Your task to perform on an android device: Open sound settings Image 0: 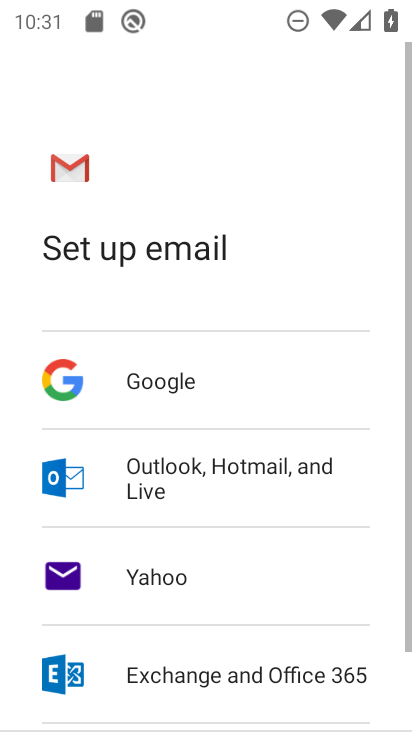
Step 0: press home button
Your task to perform on an android device: Open sound settings Image 1: 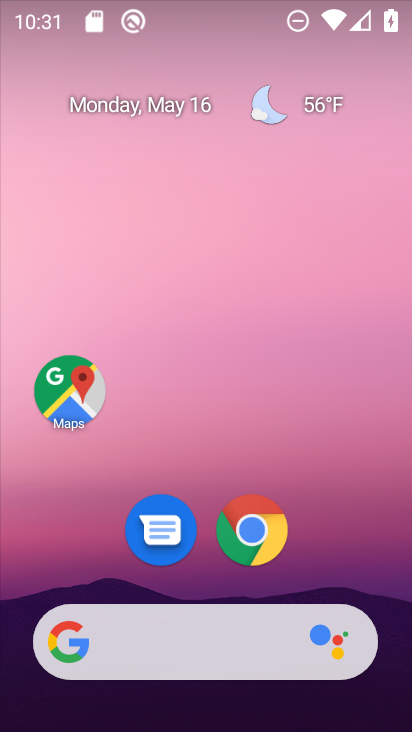
Step 1: drag from (368, 519) to (365, 201)
Your task to perform on an android device: Open sound settings Image 2: 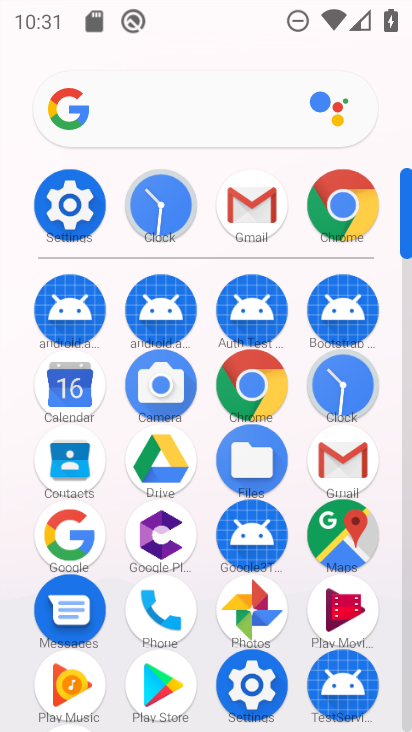
Step 2: click (94, 228)
Your task to perform on an android device: Open sound settings Image 3: 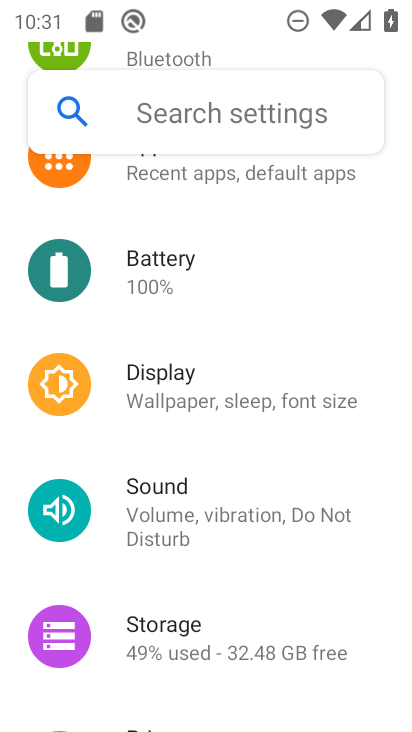
Step 3: drag from (316, 571) to (354, 391)
Your task to perform on an android device: Open sound settings Image 4: 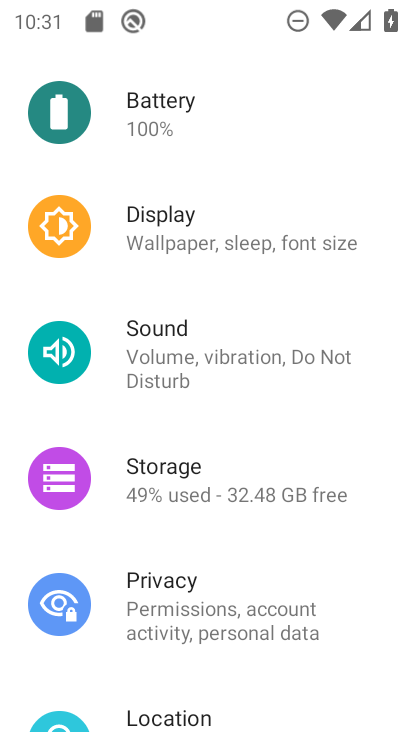
Step 4: drag from (354, 627) to (366, 520)
Your task to perform on an android device: Open sound settings Image 5: 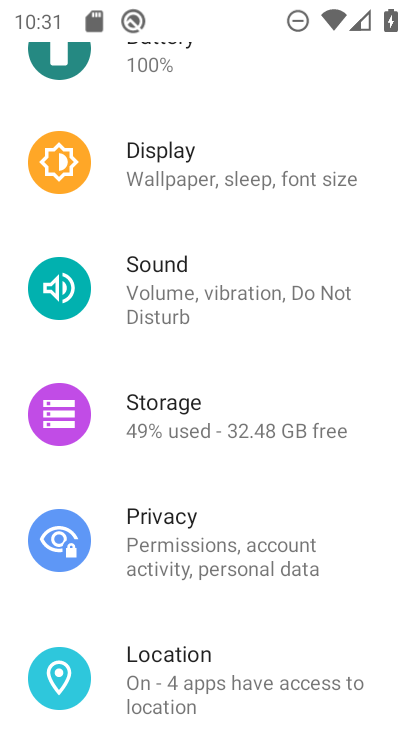
Step 5: drag from (360, 612) to (369, 417)
Your task to perform on an android device: Open sound settings Image 6: 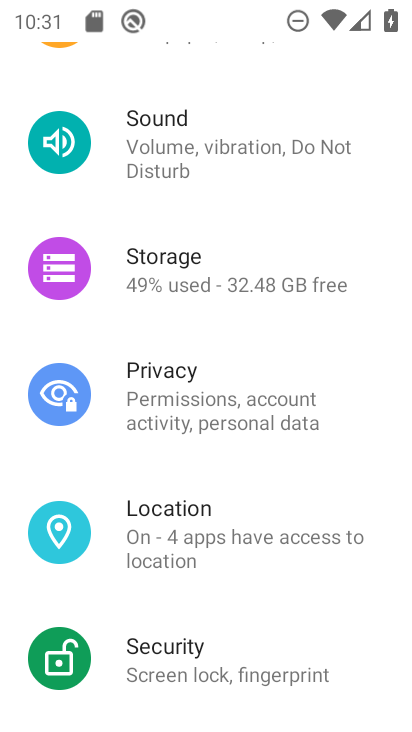
Step 6: drag from (327, 624) to (353, 477)
Your task to perform on an android device: Open sound settings Image 7: 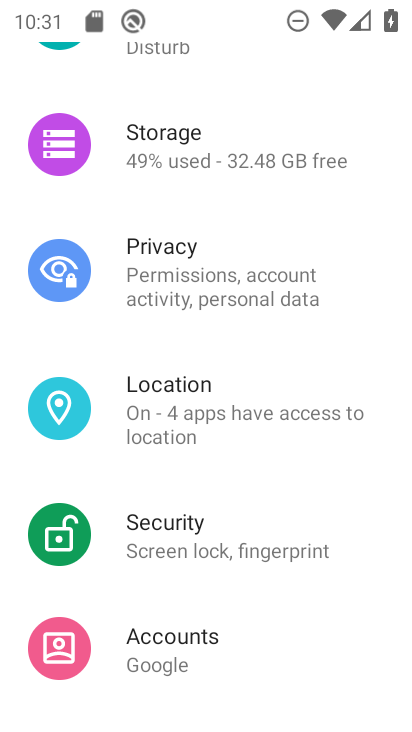
Step 7: drag from (350, 648) to (365, 538)
Your task to perform on an android device: Open sound settings Image 8: 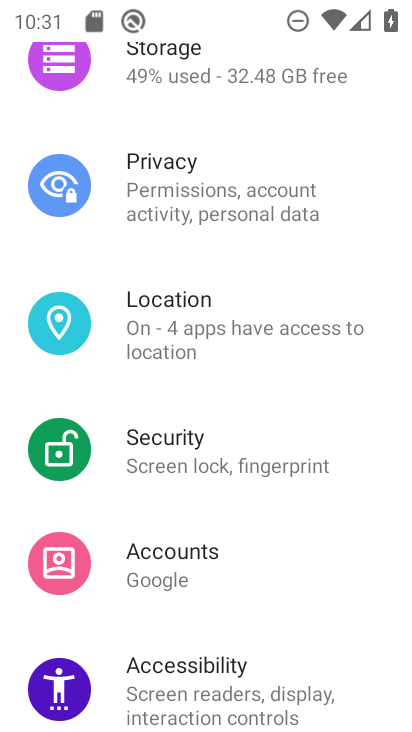
Step 8: drag from (352, 646) to (374, 566)
Your task to perform on an android device: Open sound settings Image 9: 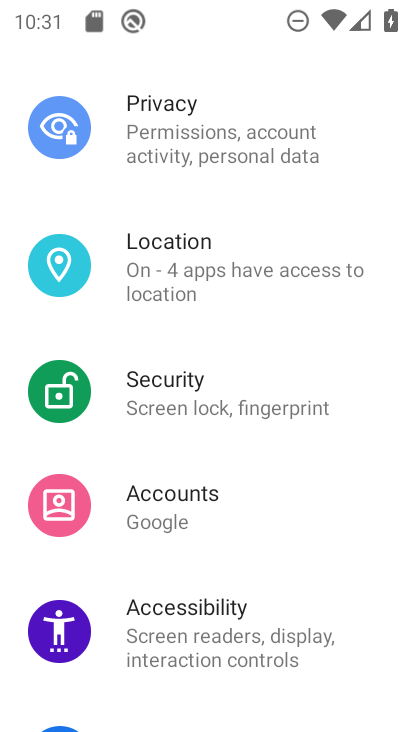
Step 9: drag from (358, 622) to (373, 574)
Your task to perform on an android device: Open sound settings Image 10: 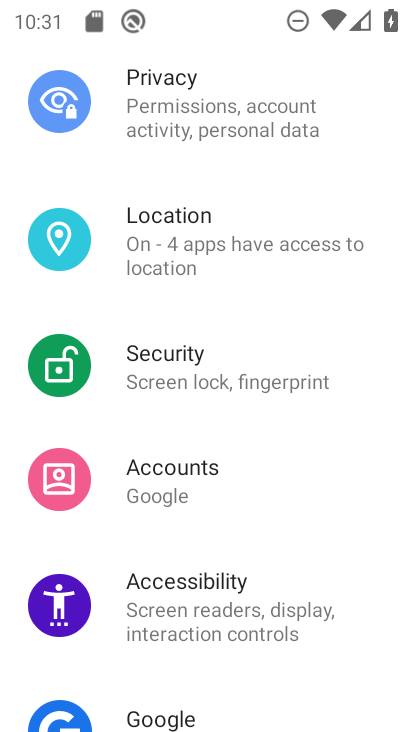
Step 10: drag from (358, 501) to (360, 584)
Your task to perform on an android device: Open sound settings Image 11: 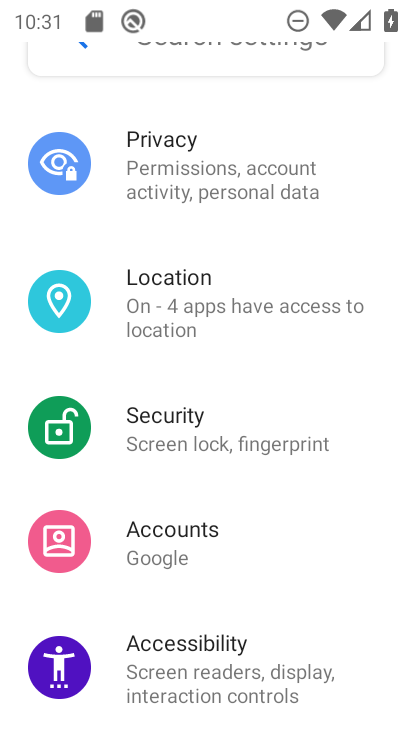
Step 11: drag from (349, 603) to (328, 508)
Your task to perform on an android device: Open sound settings Image 12: 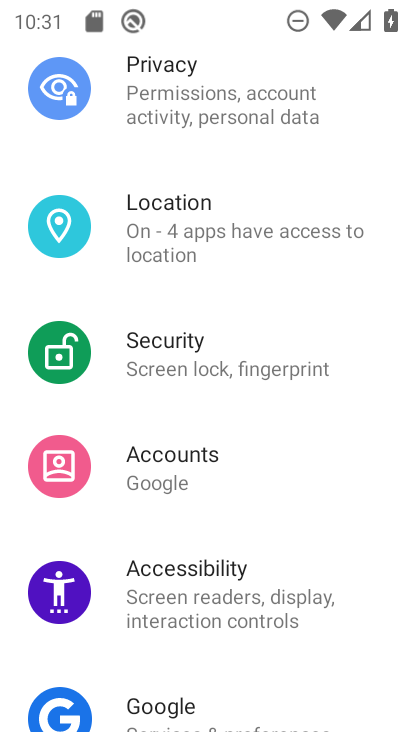
Step 12: drag from (318, 644) to (323, 477)
Your task to perform on an android device: Open sound settings Image 13: 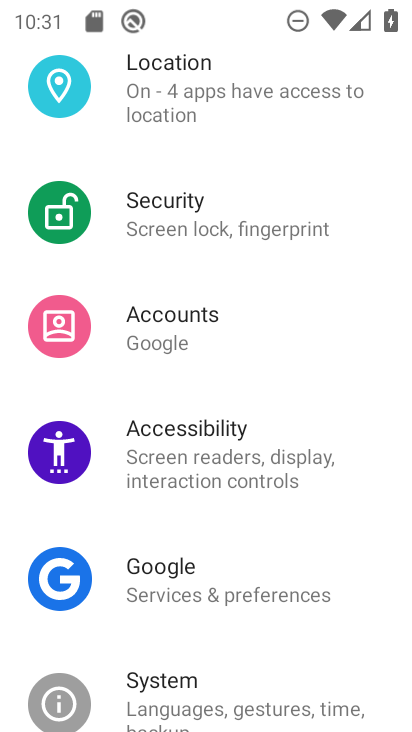
Step 13: drag from (328, 645) to (342, 535)
Your task to perform on an android device: Open sound settings Image 14: 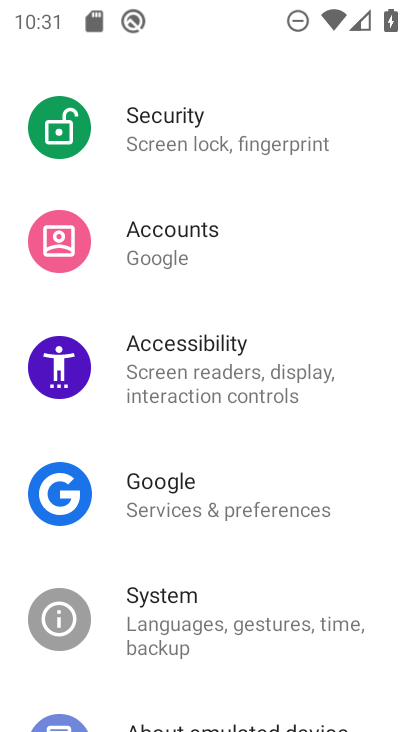
Step 14: drag from (369, 419) to (347, 503)
Your task to perform on an android device: Open sound settings Image 15: 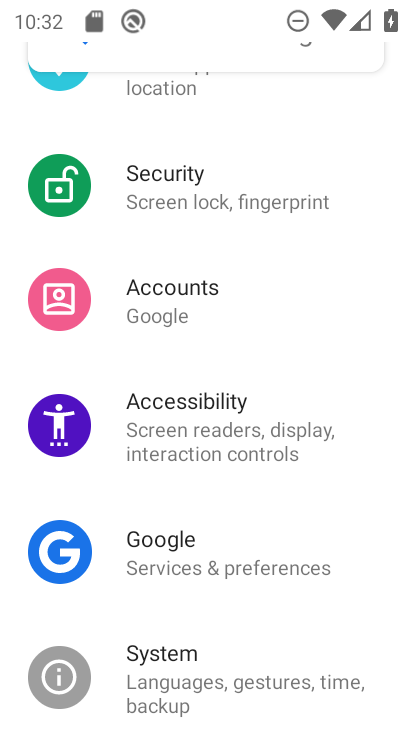
Step 15: drag from (356, 320) to (341, 517)
Your task to perform on an android device: Open sound settings Image 16: 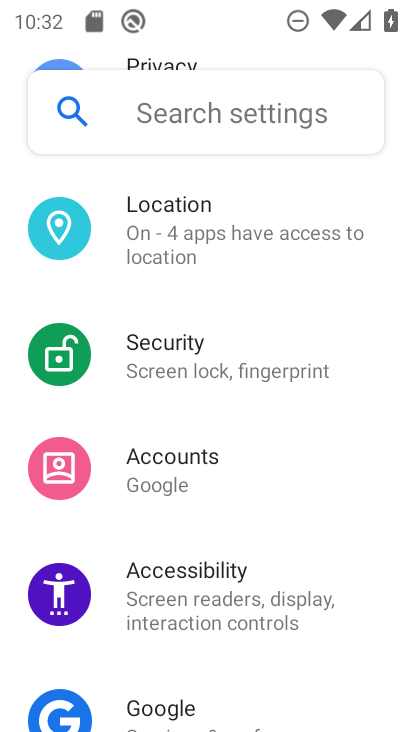
Step 16: drag from (365, 358) to (349, 475)
Your task to perform on an android device: Open sound settings Image 17: 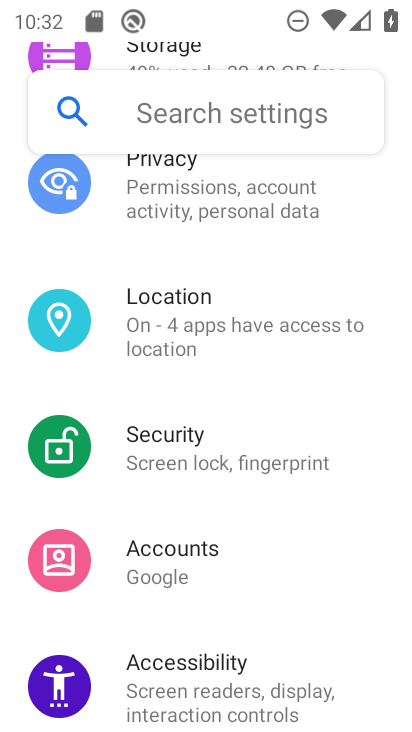
Step 17: drag from (360, 388) to (363, 425)
Your task to perform on an android device: Open sound settings Image 18: 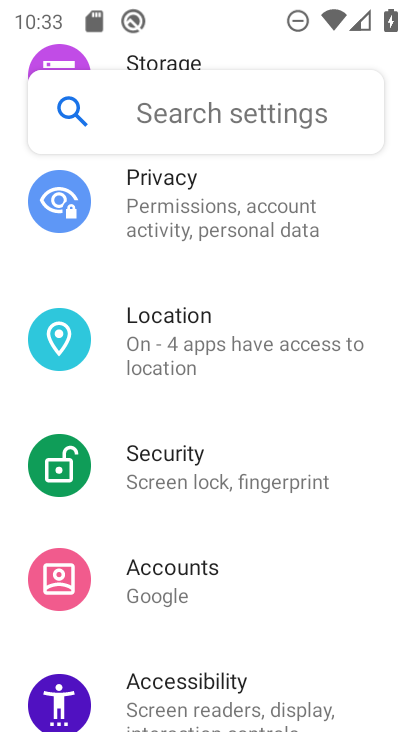
Step 18: drag from (298, 588) to (300, 382)
Your task to perform on an android device: Open sound settings Image 19: 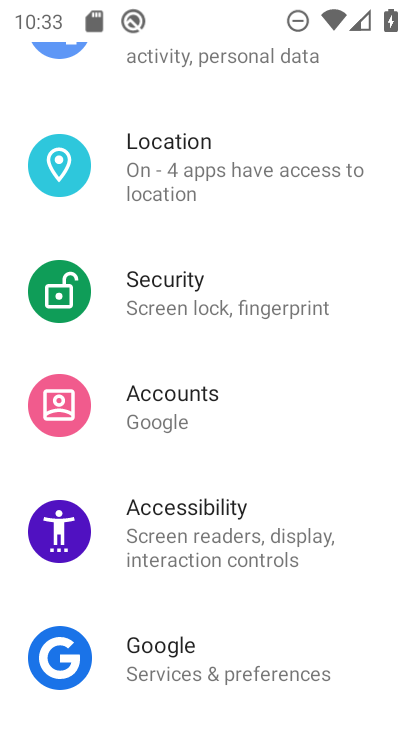
Step 19: drag from (293, 588) to (302, 395)
Your task to perform on an android device: Open sound settings Image 20: 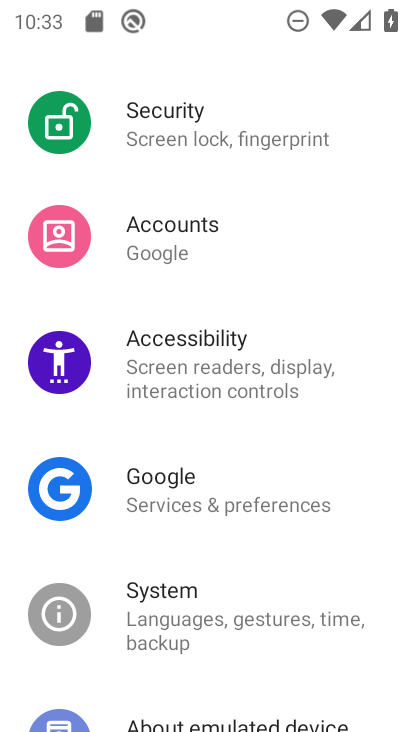
Step 20: drag from (296, 275) to (278, 538)
Your task to perform on an android device: Open sound settings Image 21: 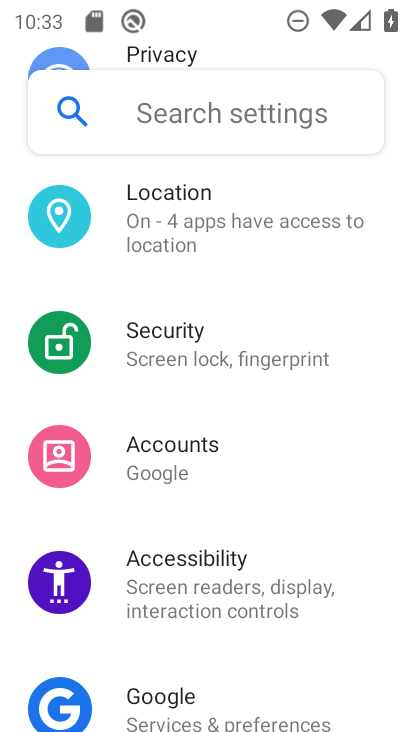
Step 21: drag from (305, 268) to (278, 498)
Your task to perform on an android device: Open sound settings Image 22: 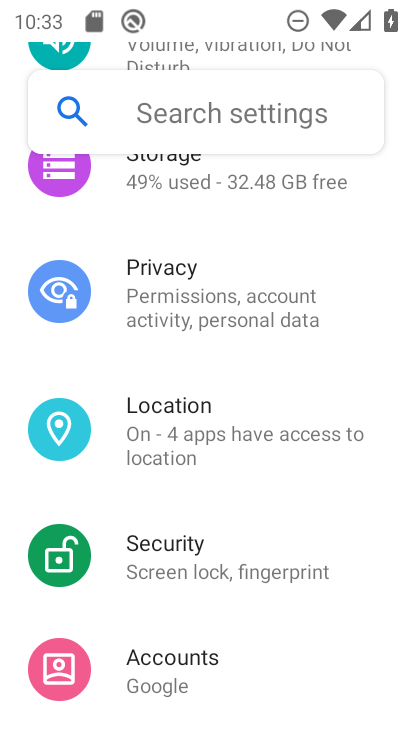
Step 22: drag from (294, 271) to (293, 479)
Your task to perform on an android device: Open sound settings Image 23: 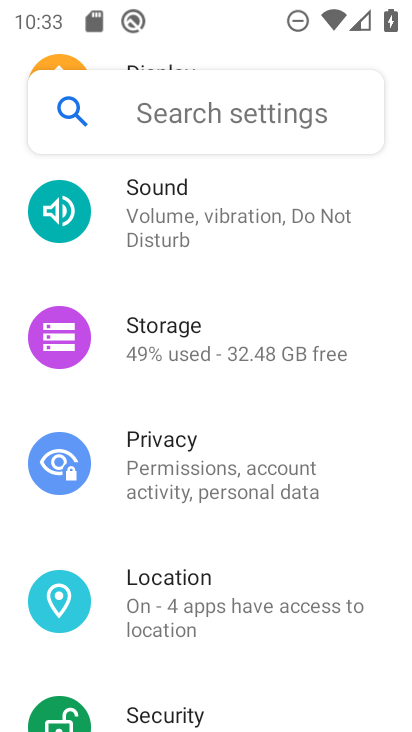
Step 23: drag from (328, 247) to (302, 432)
Your task to perform on an android device: Open sound settings Image 24: 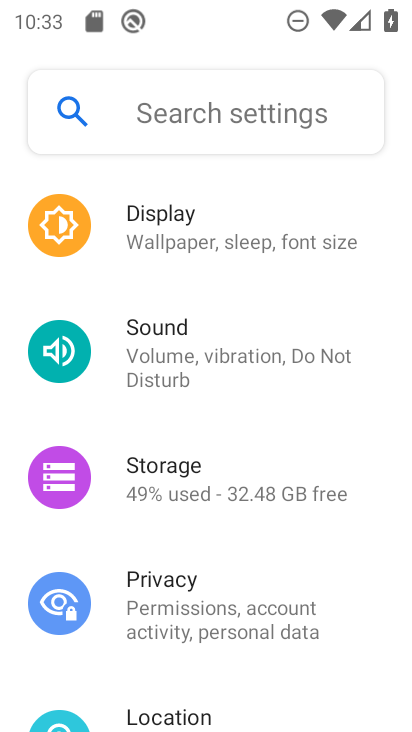
Step 24: click (265, 415)
Your task to perform on an android device: Open sound settings Image 25: 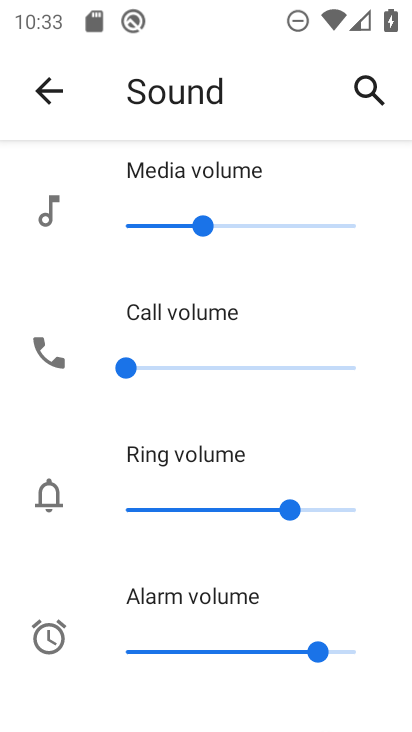
Step 25: task complete